Your task to perform on an android device: open app "LinkedIn" Image 0: 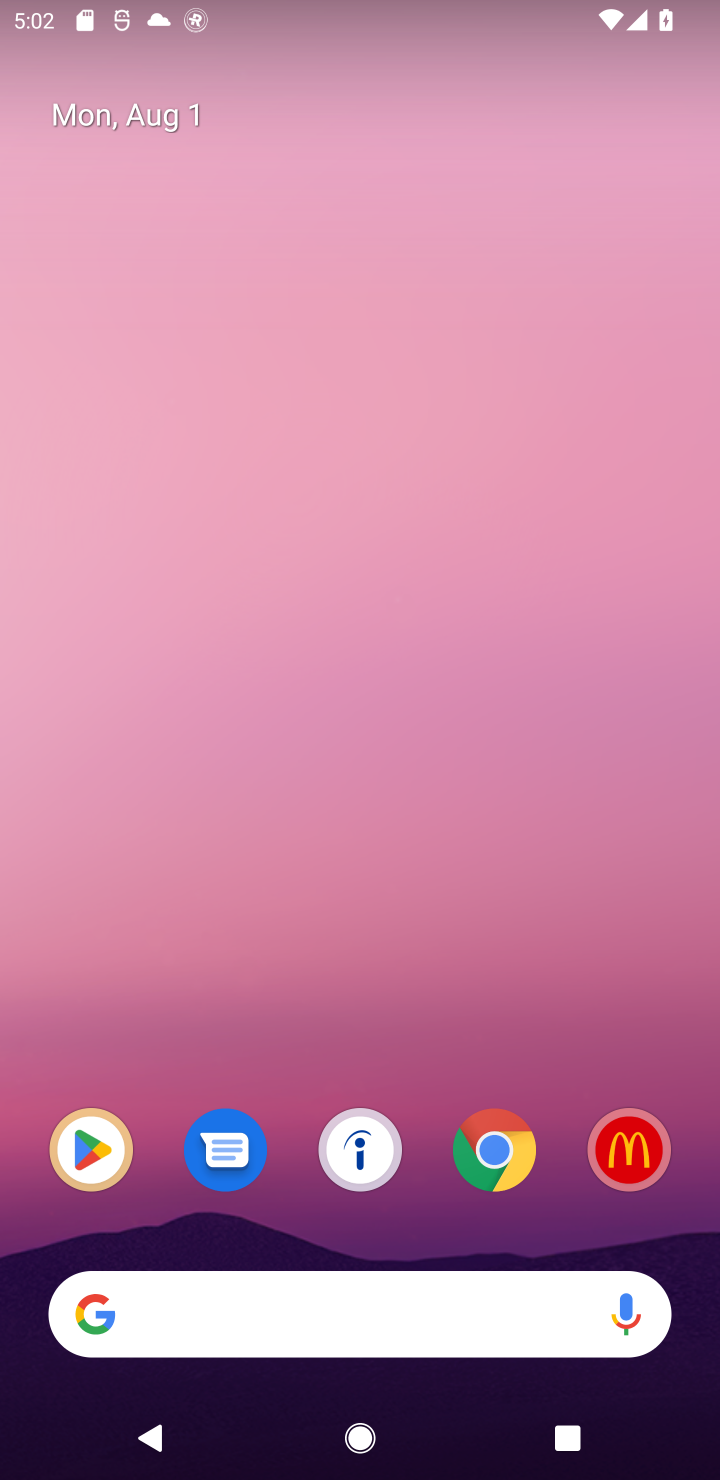
Step 0: drag from (280, 1228) to (355, 347)
Your task to perform on an android device: open app "LinkedIn" Image 1: 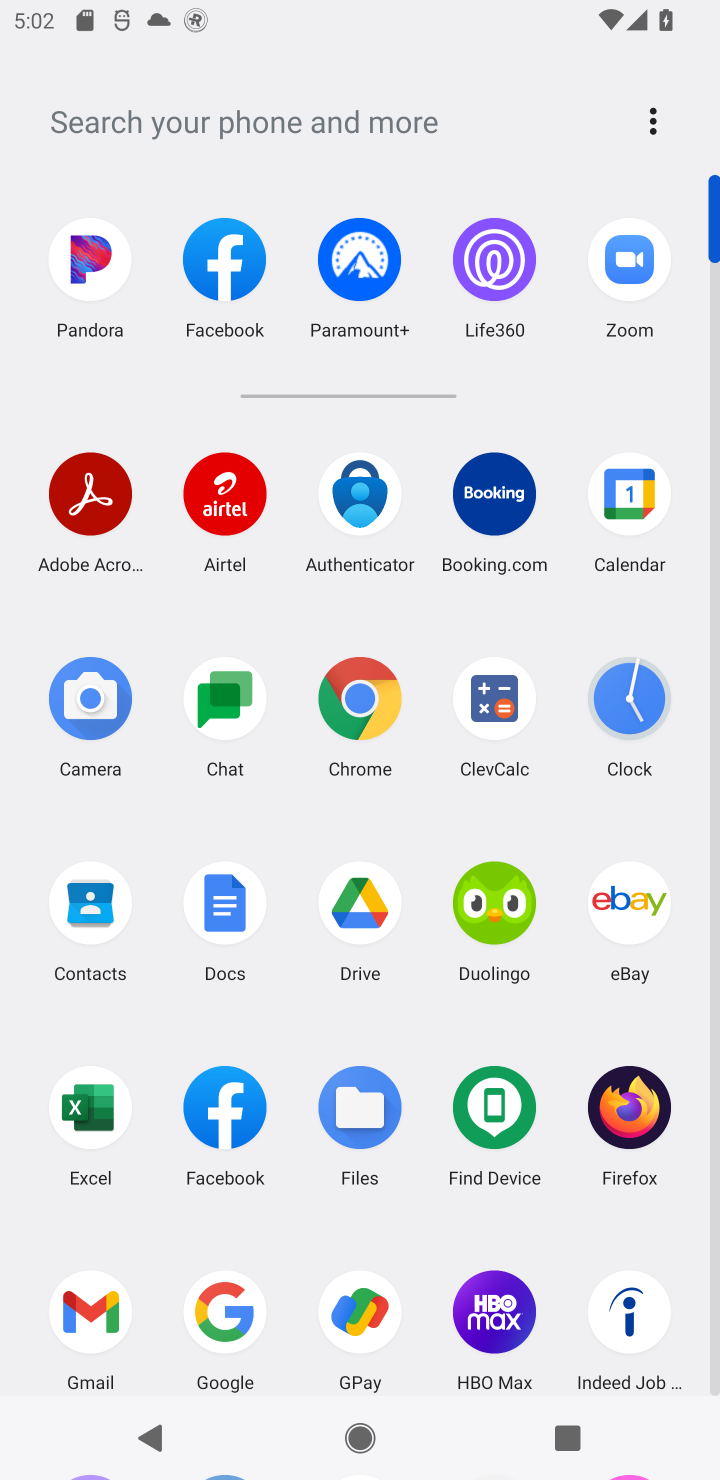
Step 1: click (430, 145)
Your task to perform on an android device: open app "LinkedIn" Image 2: 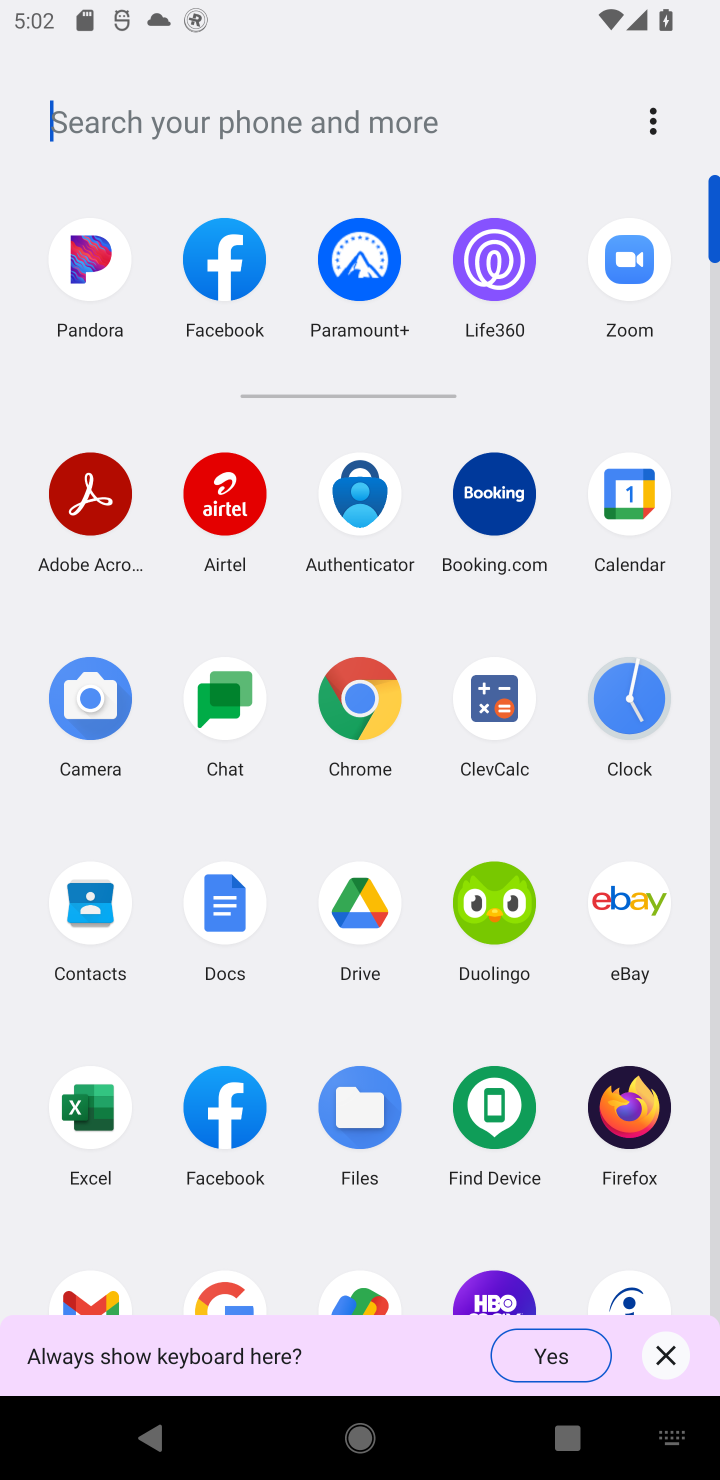
Step 2: click (663, 1360)
Your task to perform on an android device: open app "LinkedIn" Image 3: 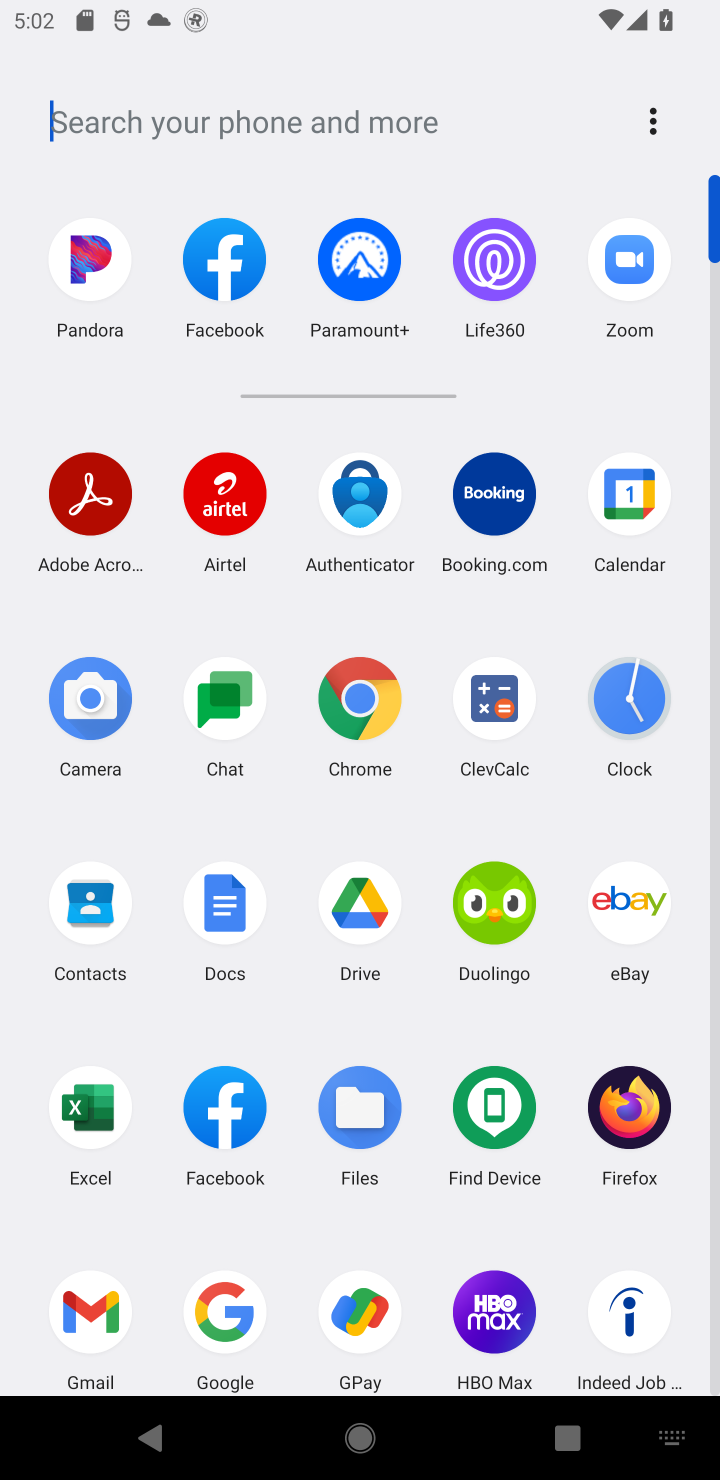
Step 3: type "linedin"
Your task to perform on an android device: open app "LinkedIn" Image 4: 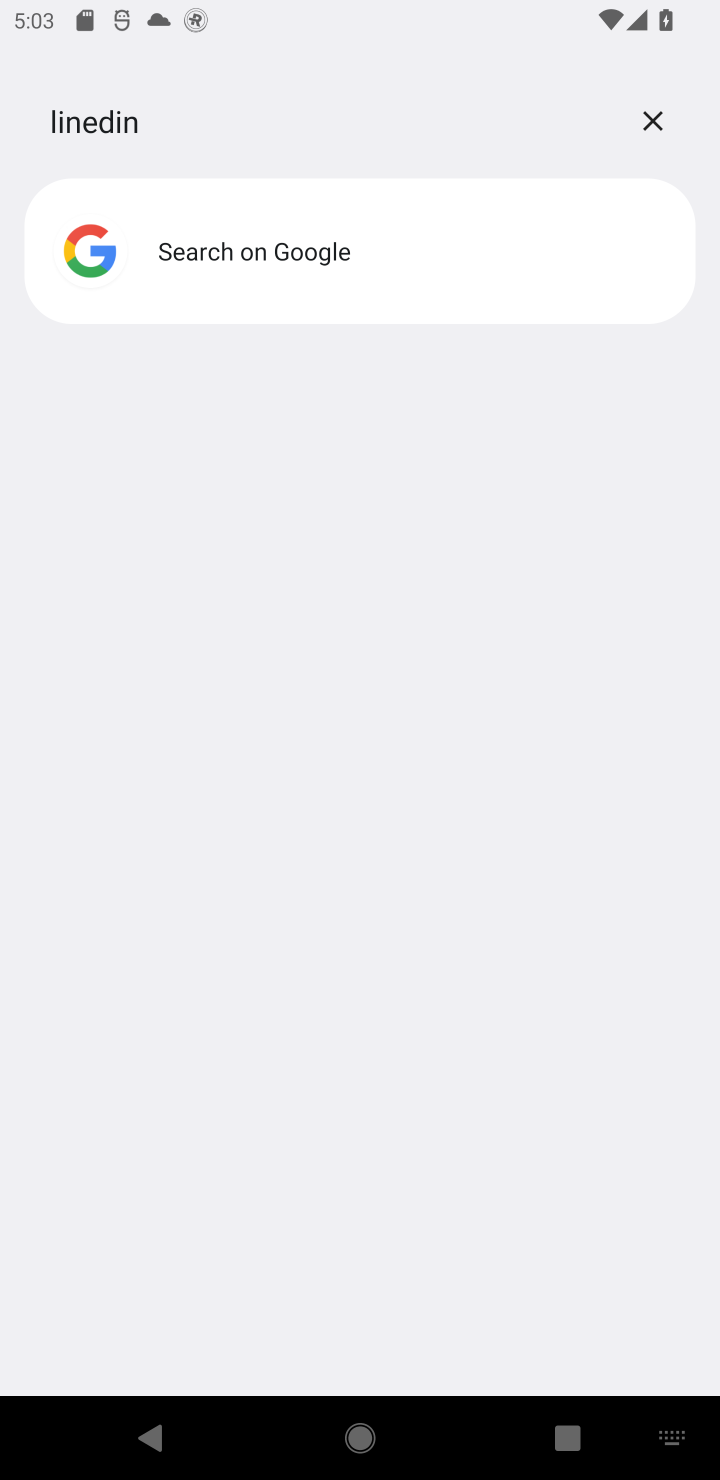
Step 4: click (644, 113)
Your task to perform on an android device: open app "LinkedIn" Image 5: 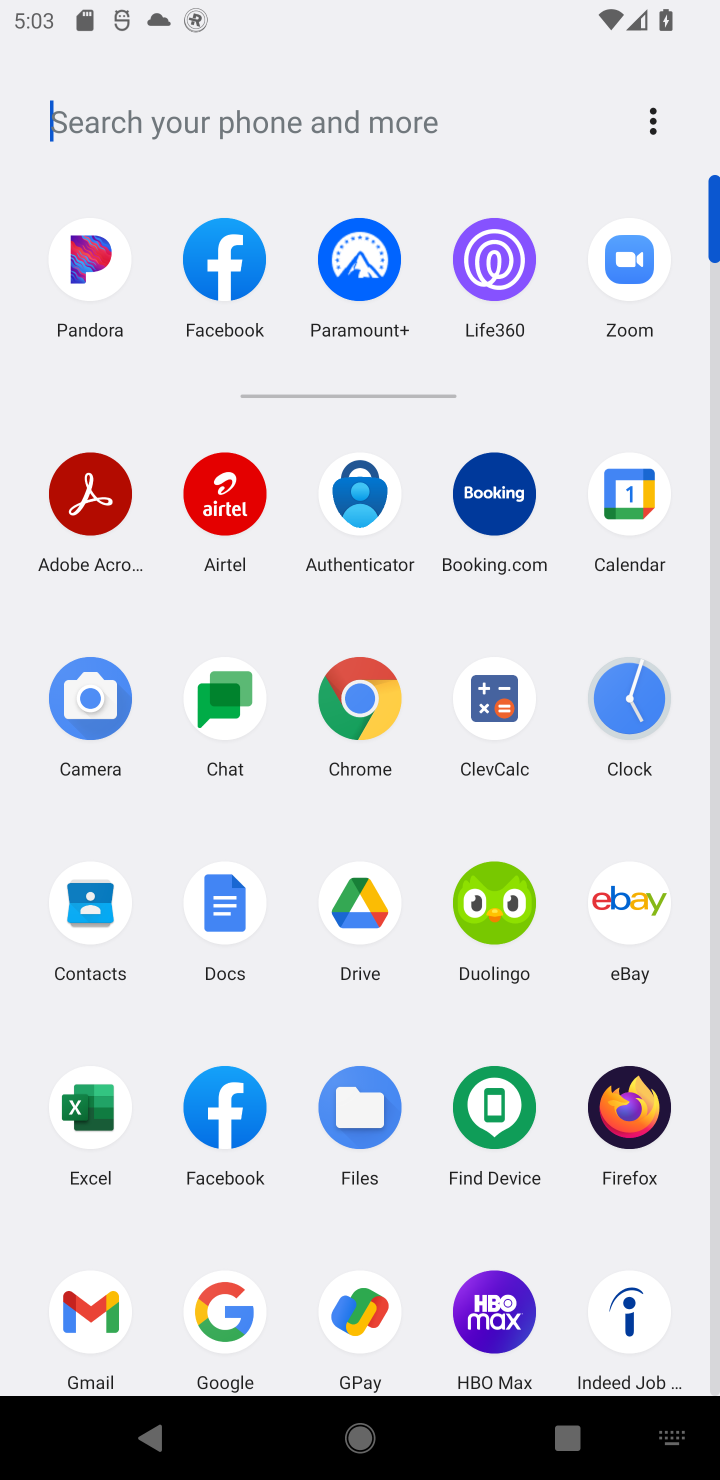
Step 5: task complete